Your task to perform on an android device: What's on my calendar tomorrow? Image 0: 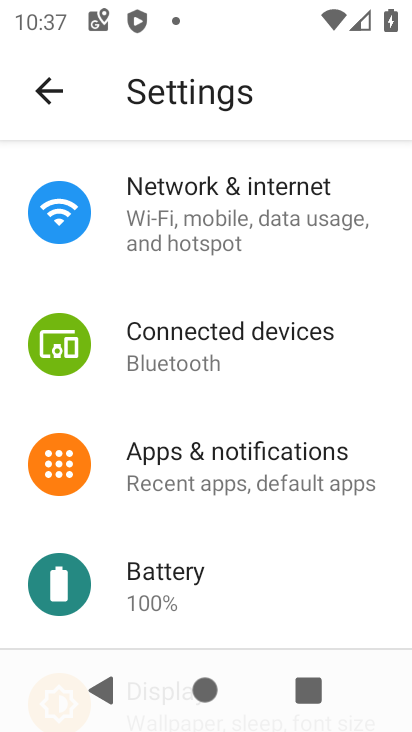
Step 0: press home button
Your task to perform on an android device: What's on my calendar tomorrow? Image 1: 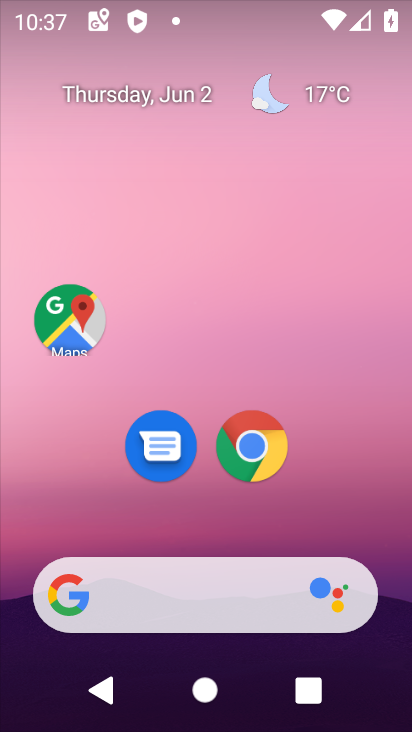
Step 1: drag from (341, 520) to (308, 183)
Your task to perform on an android device: What's on my calendar tomorrow? Image 2: 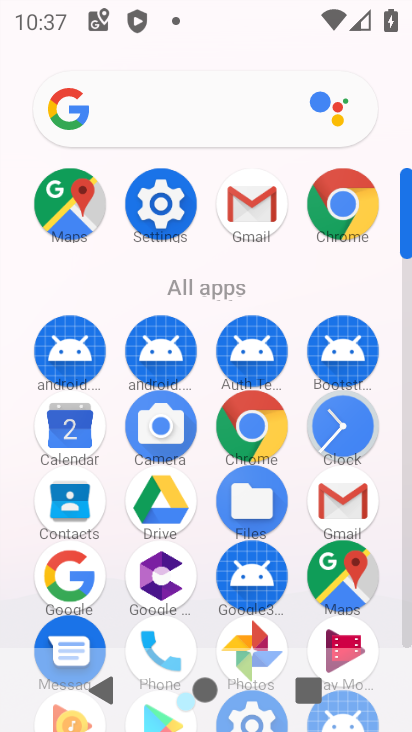
Step 2: click (63, 427)
Your task to perform on an android device: What's on my calendar tomorrow? Image 3: 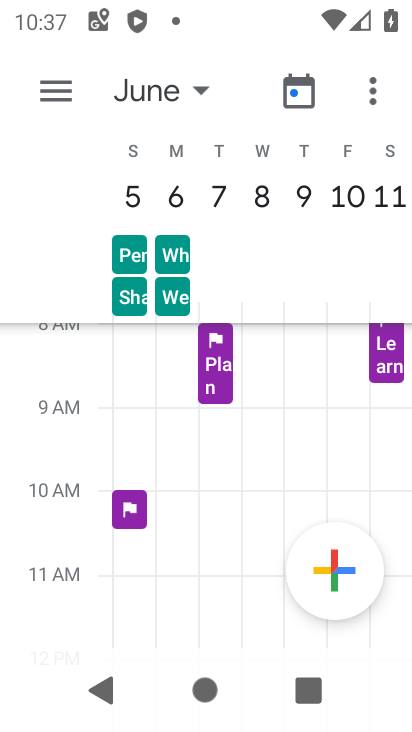
Step 3: click (194, 94)
Your task to perform on an android device: What's on my calendar tomorrow? Image 4: 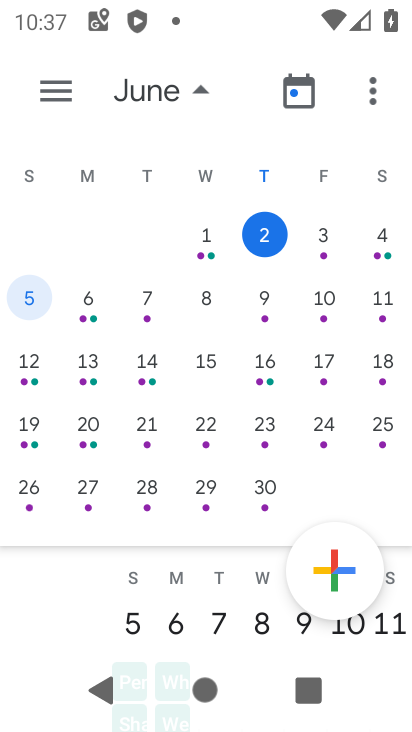
Step 4: click (329, 241)
Your task to perform on an android device: What's on my calendar tomorrow? Image 5: 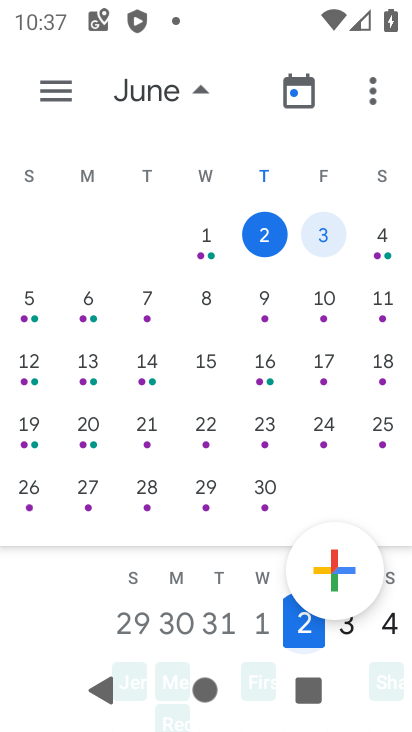
Step 5: click (44, 72)
Your task to perform on an android device: What's on my calendar tomorrow? Image 6: 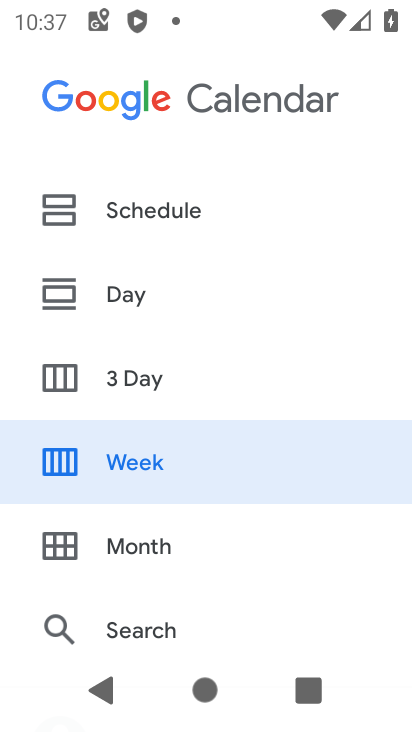
Step 6: click (151, 300)
Your task to perform on an android device: What's on my calendar tomorrow? Image 7: 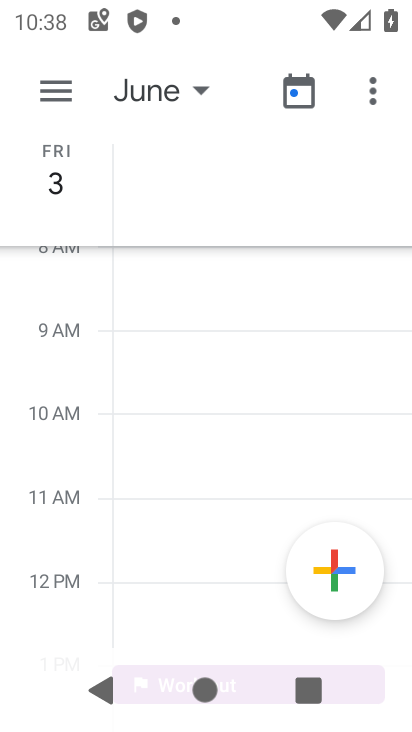
Step 7: task complete